Your task to perform on an android device: check google app version Image 0: 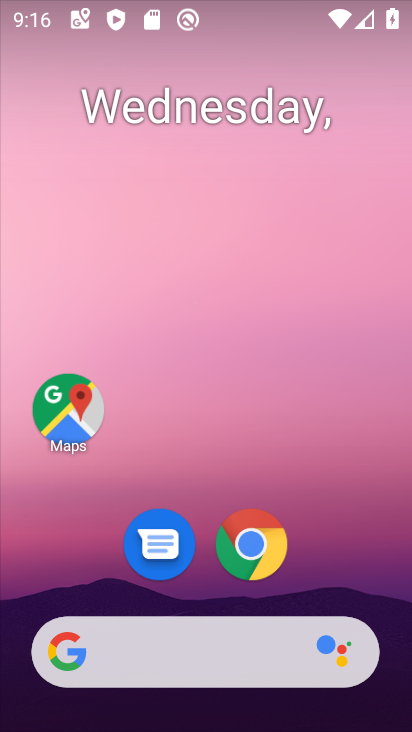
Step 0: click (81, 654)
Your task to perform on an android device: check google app version Image 1: 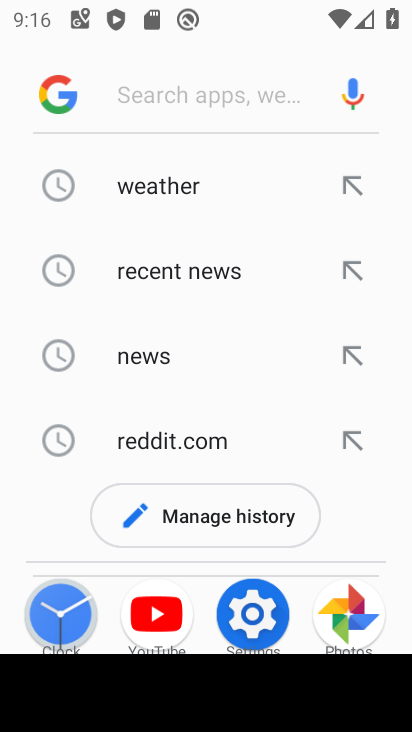
Step 1: click (53, 104)
Your task to perform on an android device: check google app version Image 2: 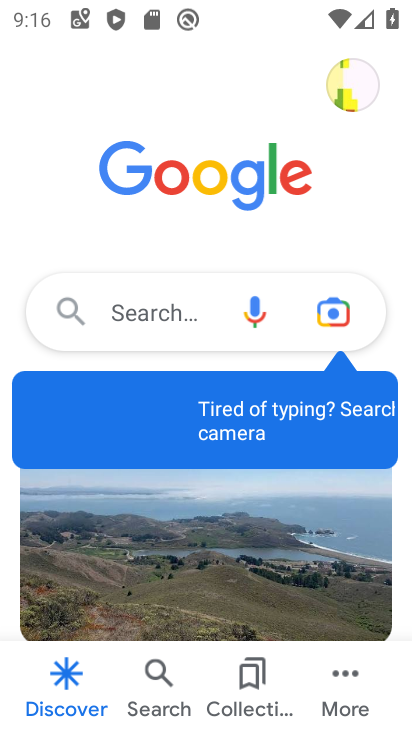
Step 2: click (359, 685)
Your task to perform on an android device: check google app version Image 3: 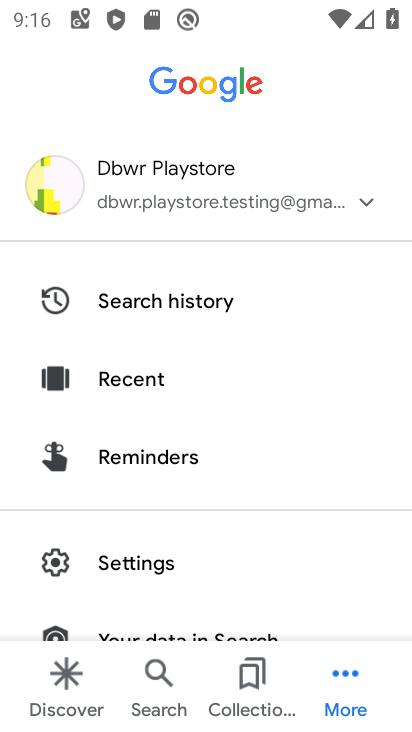
Step 3: click (144, 579)
Your task to perform on an android device: check google app version Image 4: 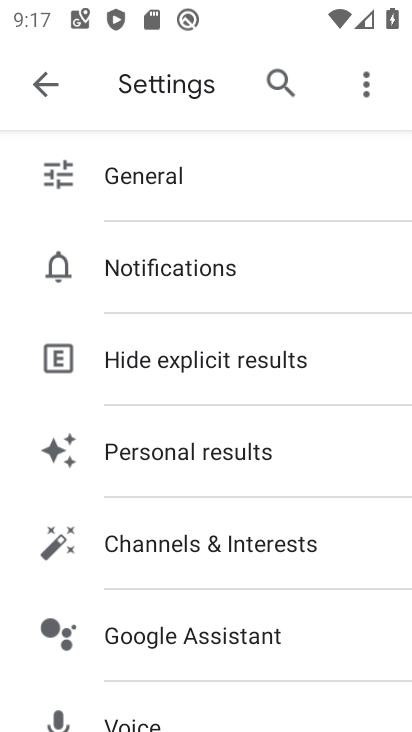
Step 4: drag from (77, 674) to (92, 170)
Your task to perform on an android device: check google app version Image 5: 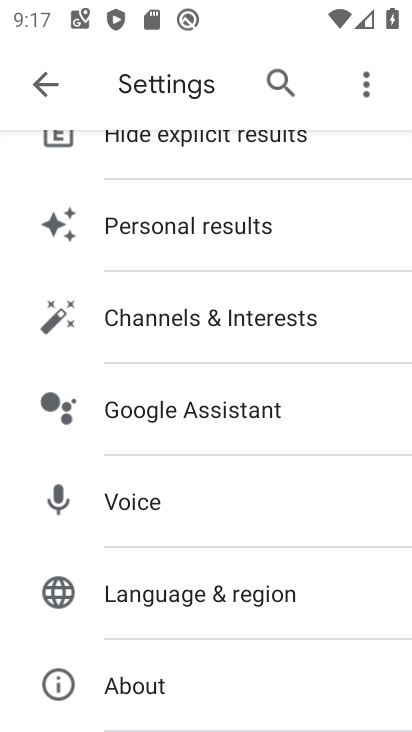
Step 5: click (66, 671)
Your task to perform on an android device: check google app version Image 6: 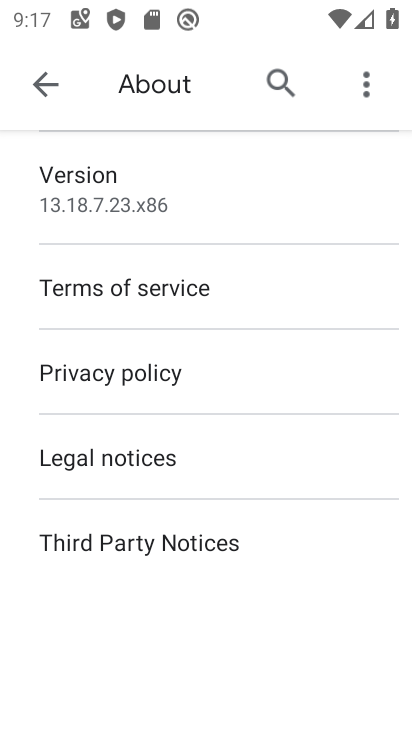
Step 6: task complete